Your task to perform on an android device: Check the weather Image 0: 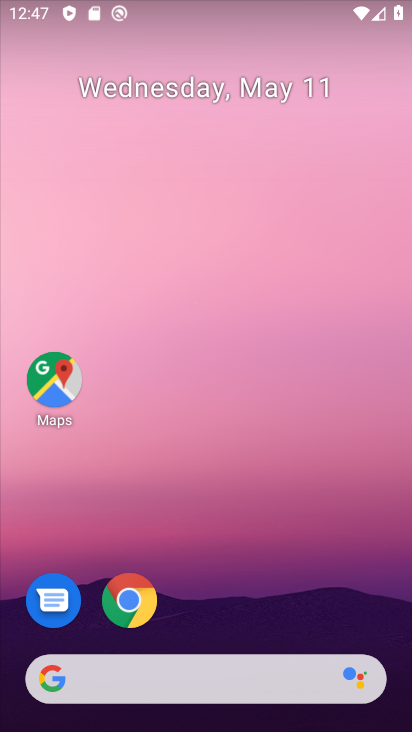
Step 0: drag from (262, 434) to (266, 302)
Your task to perform on an android device: Check the weather Image 1: 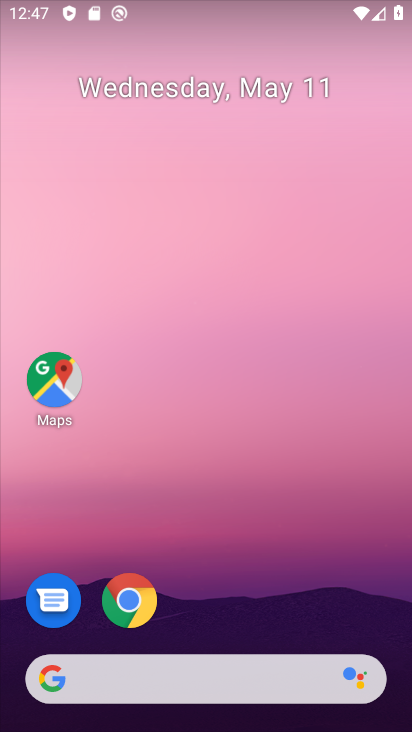
Step 1: drag from (258, 579) to (302, 221)
Your task to perform on an android device: Check the weather Image 2: 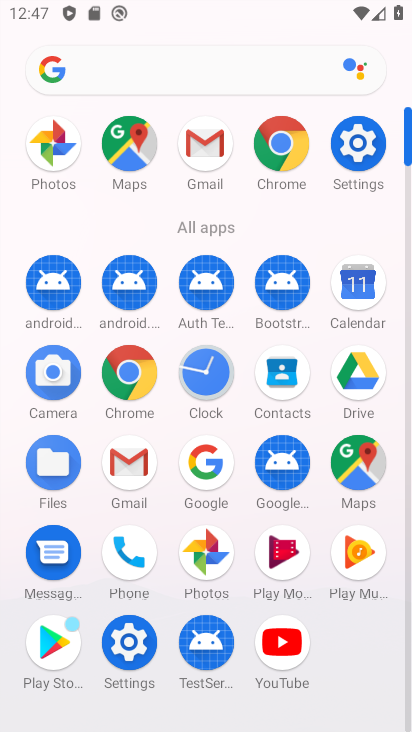
Step 2: click (277, 126)
Your task to perform on an android device: Check the weather Image 3: 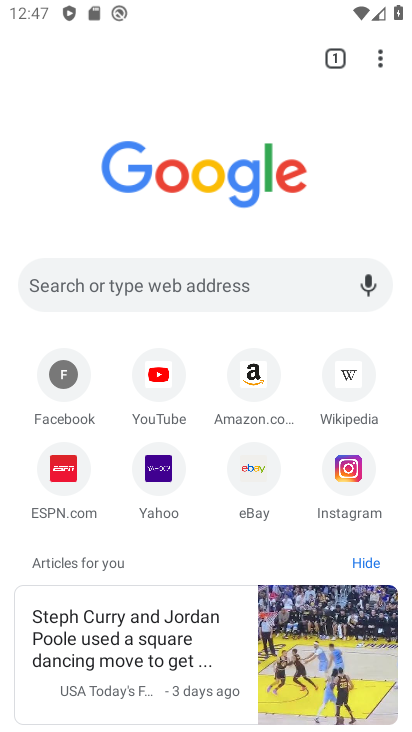
Step 3: click (178, 266)
Your task to perform on an android device: Check the weather Image 4: 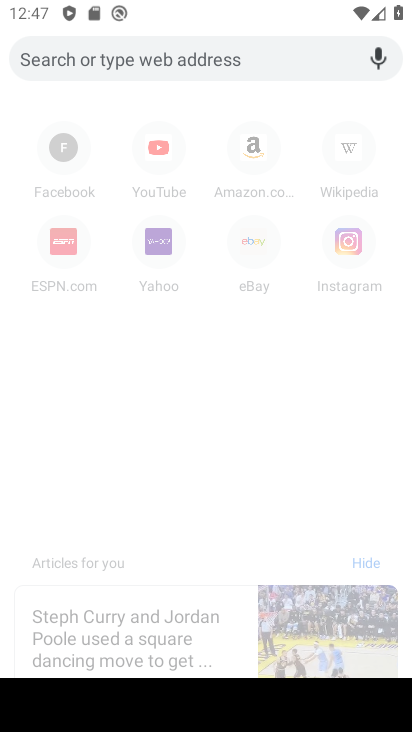
Step 4: type "Check the weather"
Your task to perform on an android device: Check the weather Image 5: 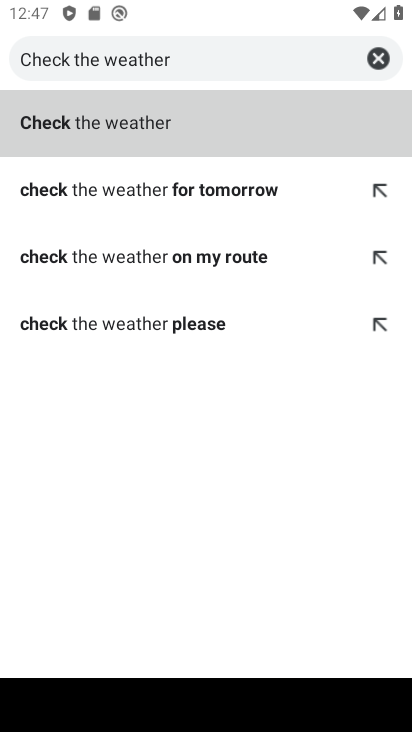
Step 5: click (160, 125)
Your task to perform on an android device: Check the weather Image 6: 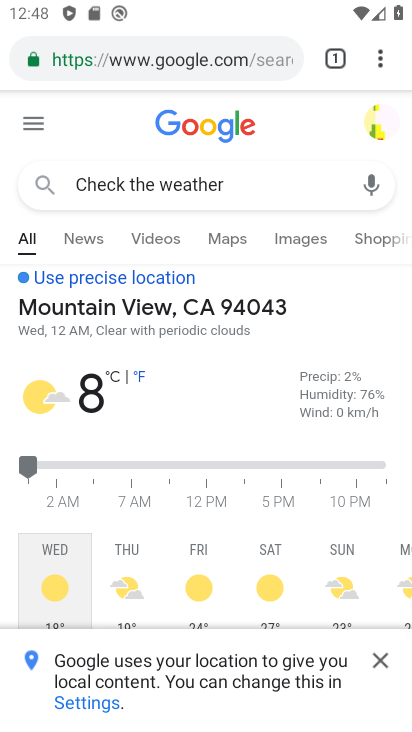
Step 6: task complete